Your task to perform on an android device: Go to display settings Image 0: 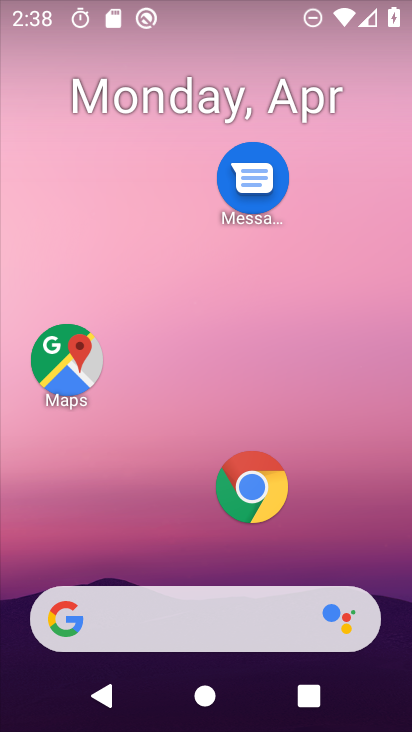
Step 0: drag from (315, 565) to (319, 25)
Your task to perform on an android device: Go to display settings Image 1: 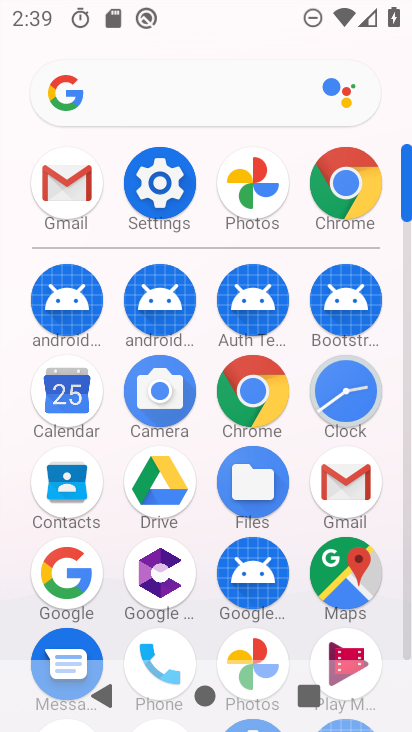
Step 1: drag from (299, 621) to (314, 191)
Your task to perform on an android device: Go to display settings Image 2: 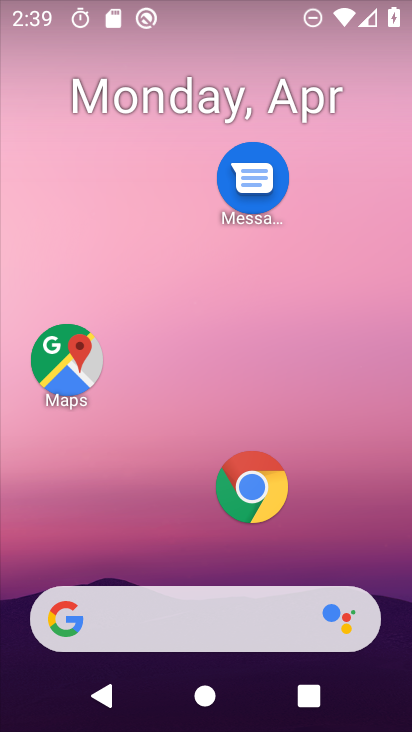
Step 2: drag from (299, 611) to (383, 329)
Your task to perform on an android device: Go to display settings Image 3: 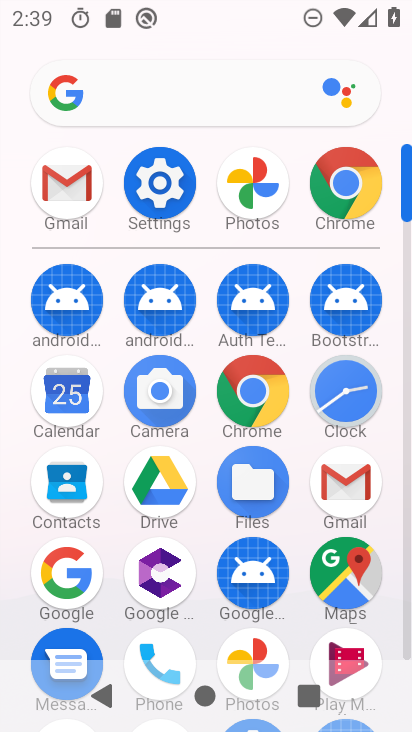
Step 3: drag from (298, 612) to (302, 212)
Your task to perform on an android device: Go to display settings Image 4: 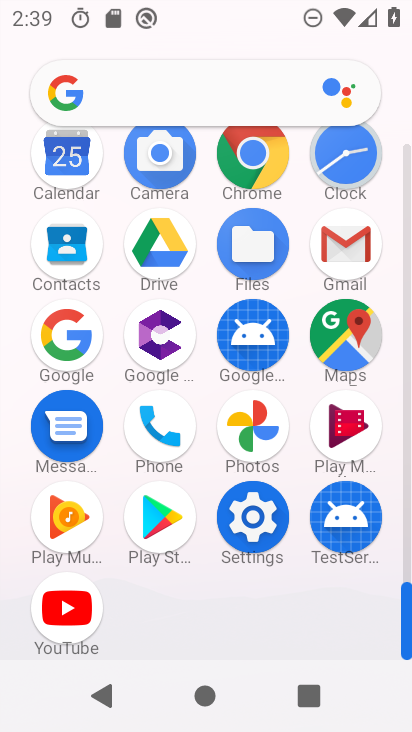
Step 4: click (268, 533)
Your task to perform on an android device: Go to display settings Image 5: 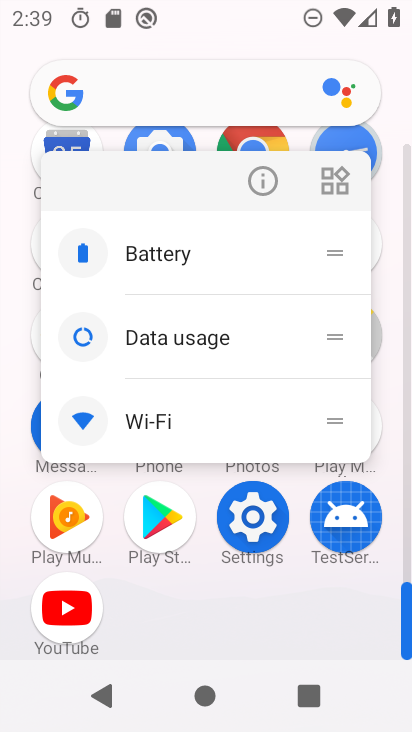
Step 5: click (248, 519)
Your task to perform on an android device: Go to display settings Image 6: 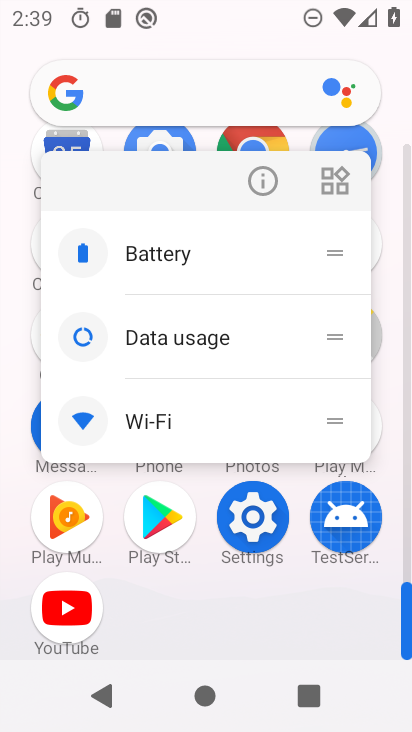
Step 6: click (248, 519)
Your task to perform on an android device: Go to display settings Image 7: 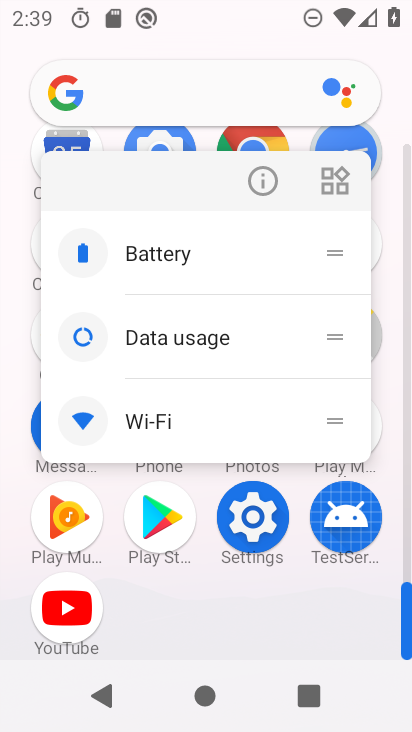
Step 7: click (247, 506)
Your task to perform on an android device: Go to display settings Image 8: 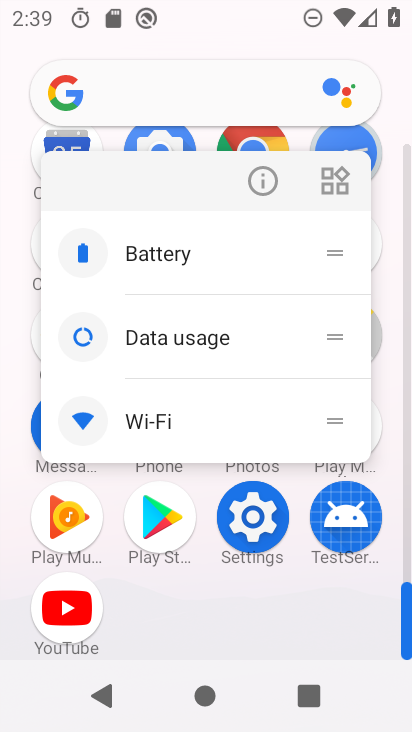
Step 8: click (256, 485)
Your task to perform on an android device: Go to display settings Image 9: 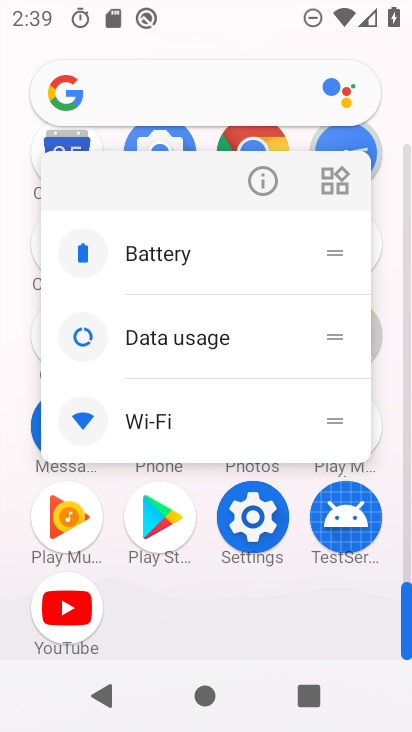
Step 9: click (257, 519)
Your task to perform on an android device: Go to display settings Image 10: 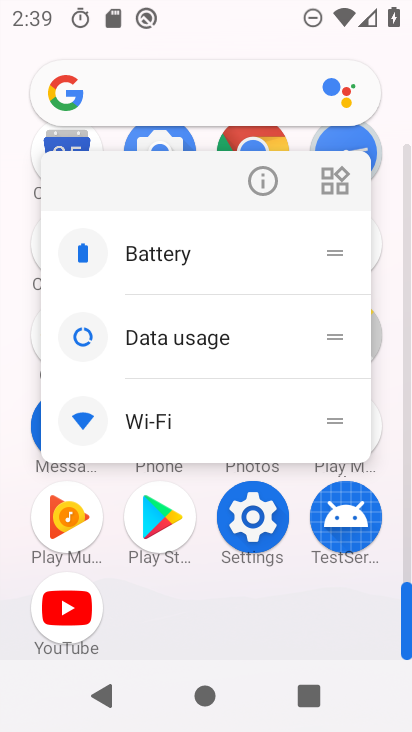
Step 10: click (257, 519)
Your task to perform on an android device: Go to display settings Image 11: 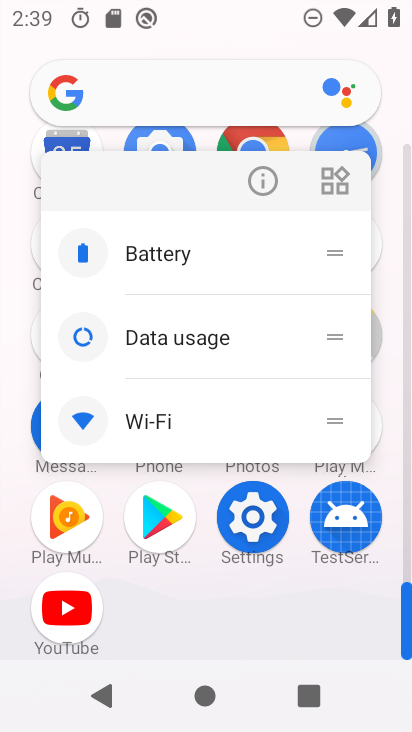
Step 11: click (257, 519)
Your task to perform on an android device: Go to display settings Image 12: 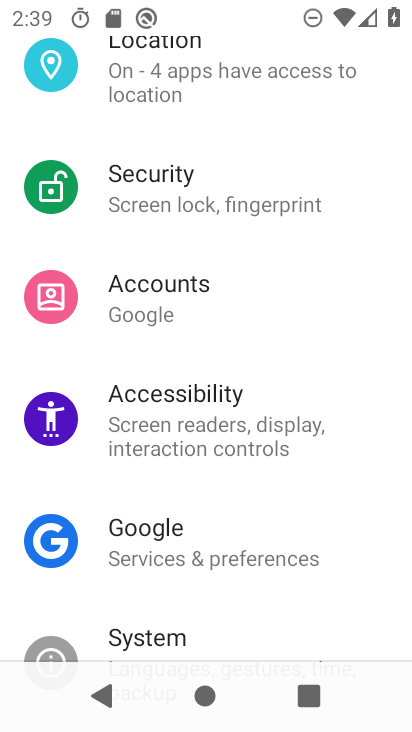
Step 12: drag from (241, 245) to (283, 692)
Your task to perform on an android device: Go to display settings Image 13: 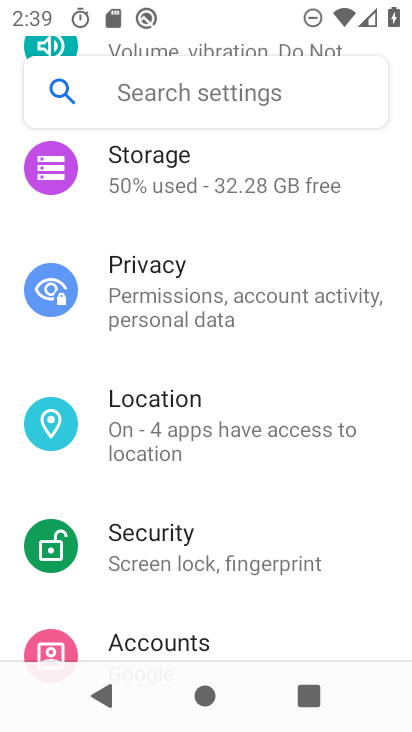
Step 13: drag from (216, 243) to (244, 728)
Your task to perform on an android device: Go to display settings Image 14: 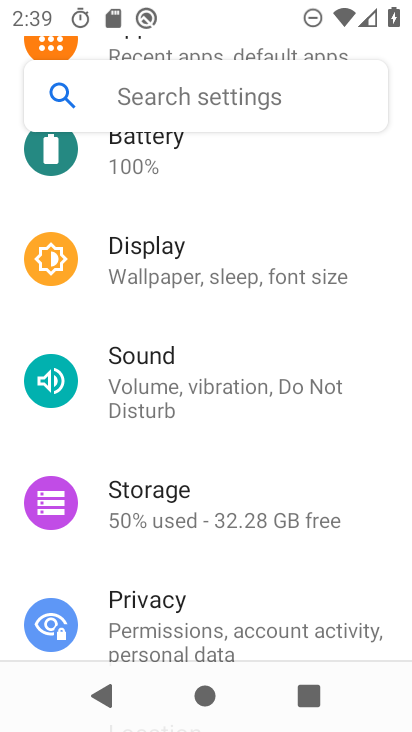
Step 14: click (179, 262)
Your task to perform on an android device: Go to display settings Image 15: 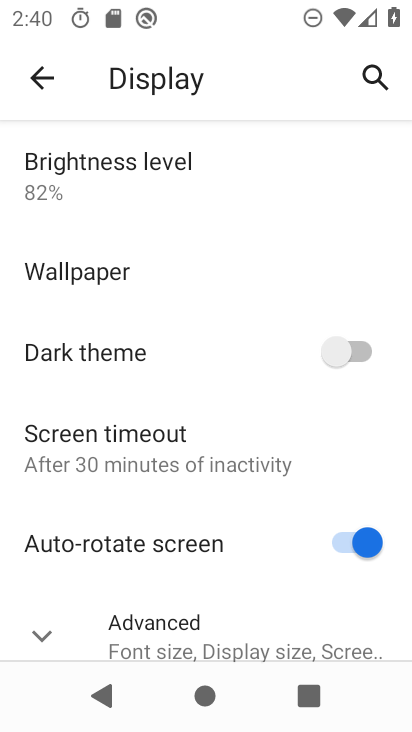
Step 15: task complete